Your task to perform on an android device: Open network settings Image 0: 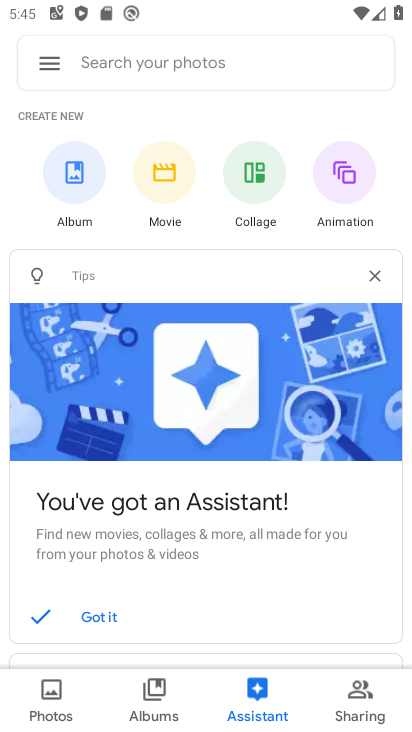
Step 0: press home button
Your task to perform on an android device: Open network settings Image 1: 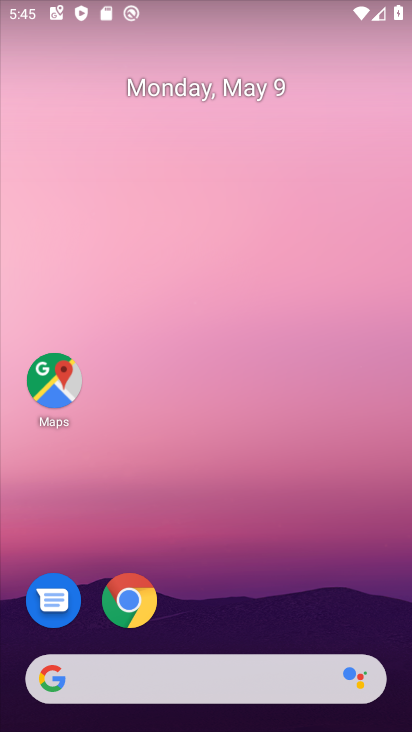
Step 1: drag from (197, 577) to (268, 3)
Your task to perform on an android device: Open network settings Image 2: 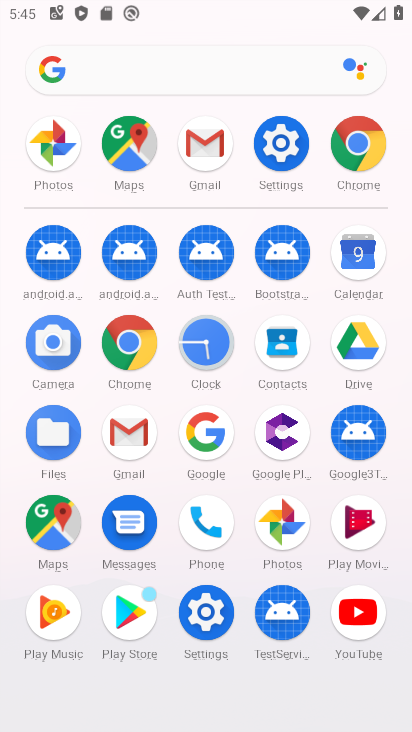
Step 2: click (278, 143)
Your task to perform on an android device: Open network settings Image 3: 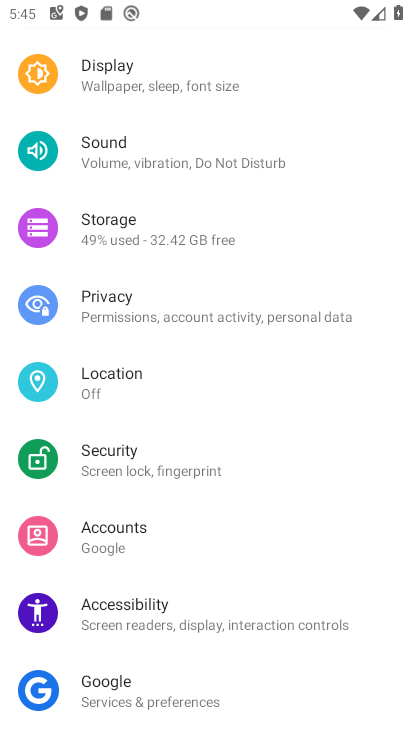
Step 3: drag from (210, 210) to (280, 602)
Your task to perform on an android device: Open network settings Image 4: 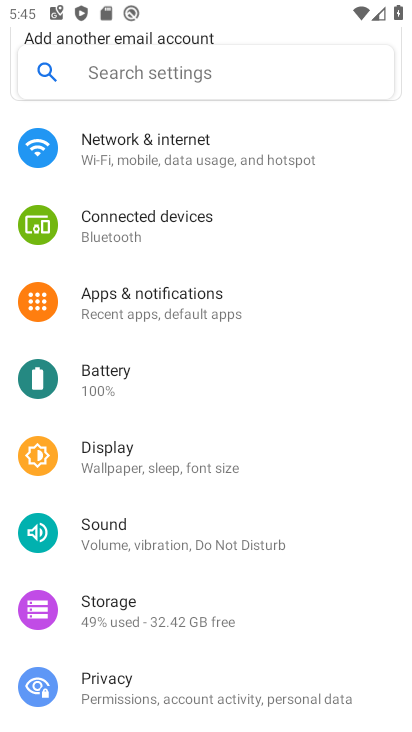
Step 4: click (204, 168)
Your task to perform on an android device: Open network settings Image 5: 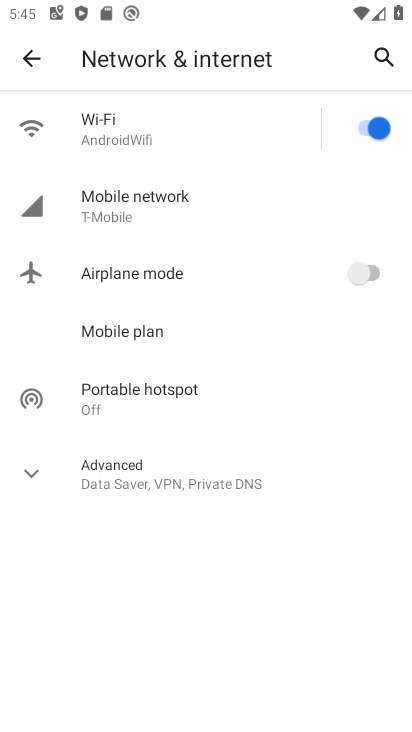
Step 5: click (164, 207)
Your task to perform on an android device: Open network settings Image 6: 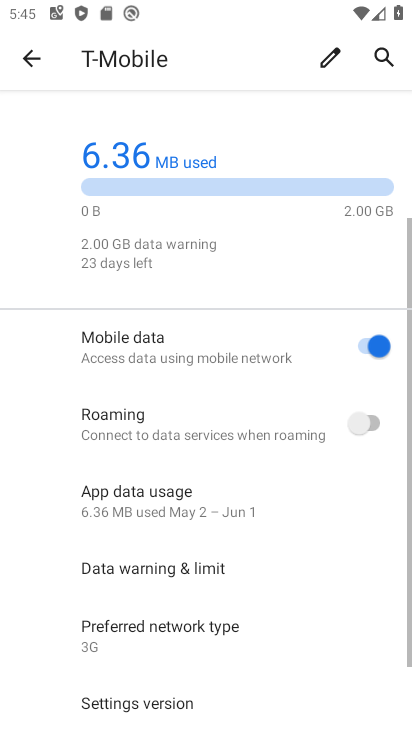
Step 6: task complete